Your task to perform on an android device: delete browsing data in the chrome app Image 0: 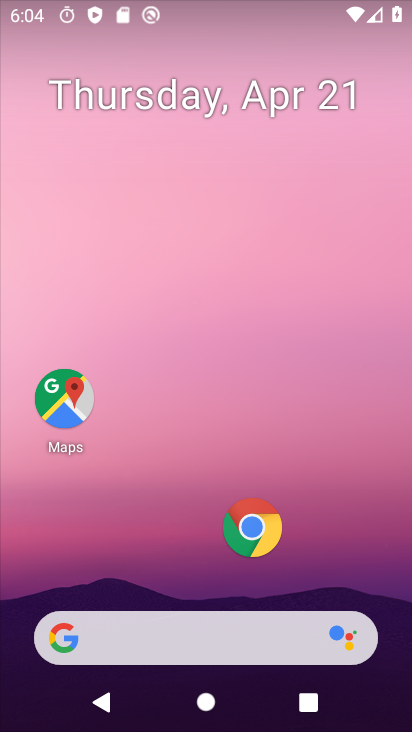
Step 0: click (258, 533)
Your task to perform on an android device: delete browsing data in the chrome app Image 1: 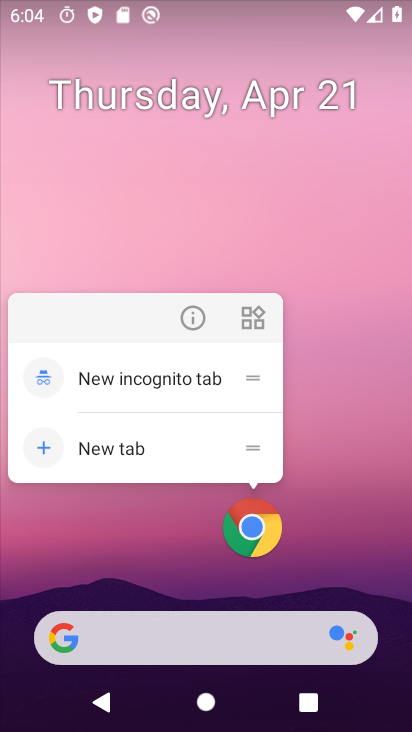
Step 1: click (259, 526)
Your task to perform on an android device: delete browsing data in the chrome app Image 2: 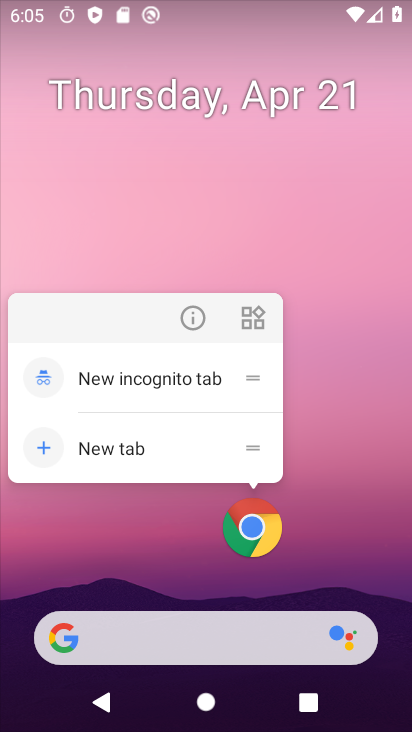
Step 2: click (253, 529)
Your task to perform on an android device: delete browsing data in the chrome app Image 3: 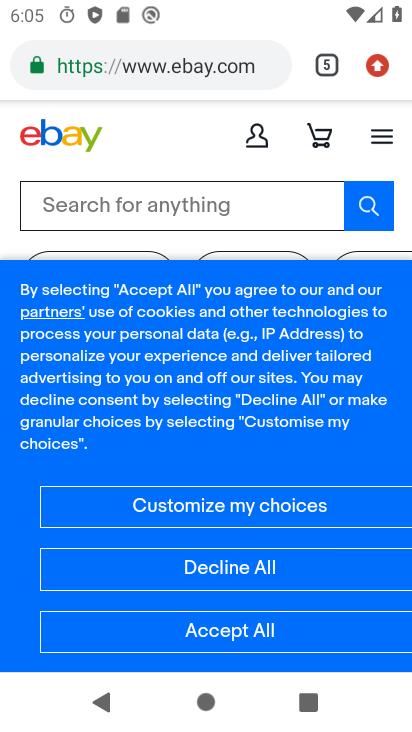
Step 3: drag from (383, 68) to (189, 440)
Your task to perform on an android device: delete browsing data in the chrome app Image 4: 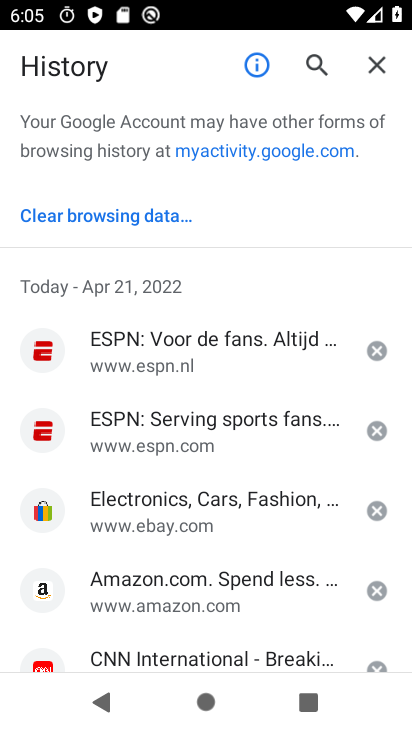
Step 4: click (112, 214)
Your task to perform on an android device: delete browsing data in the chrome app Image 5: 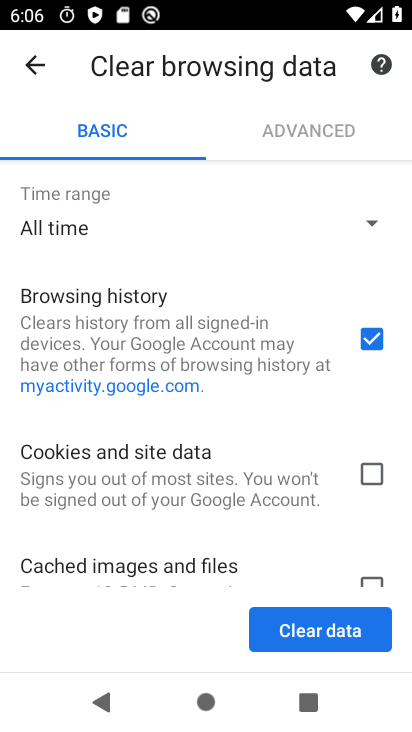
Step 5: click (345, 624)
Your task to perform on an android device: delete browsing data in the chrome app Image 6: 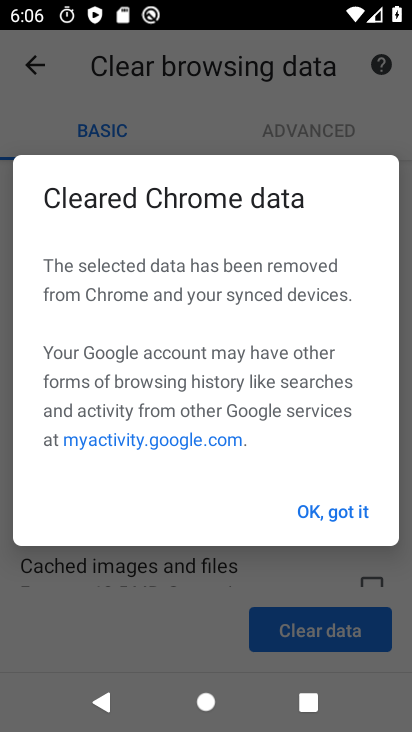
Step 6: click (327, 510)
Your task to perform on an android device: delete browsing data in the chrome app Image 7: 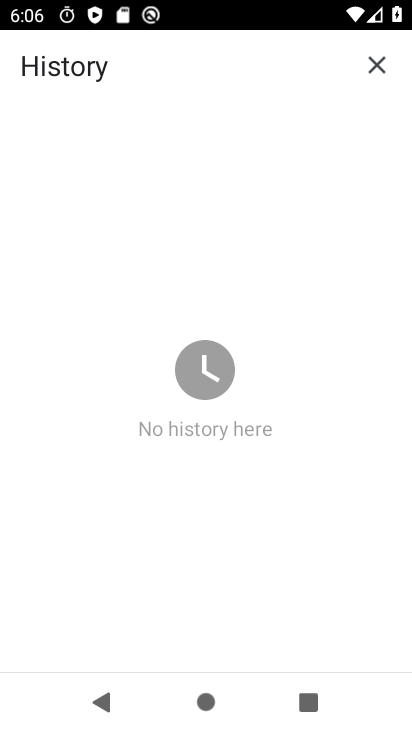
Step 7: task complete